Your task to perform on an android device: Open the calendar app, open the side menu, and click the "Day" option Image 0: 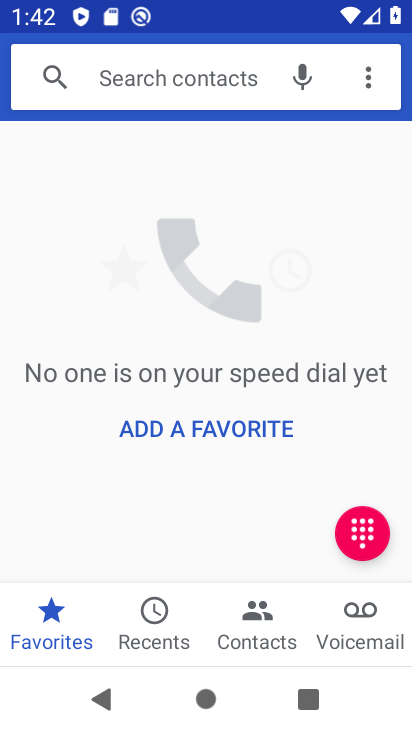
Step 0: drag from (208, 544) to (234, 26)
Your task to perform on an android device: Open the calendar app, open the side menu, and click the "Day" option Image 1: 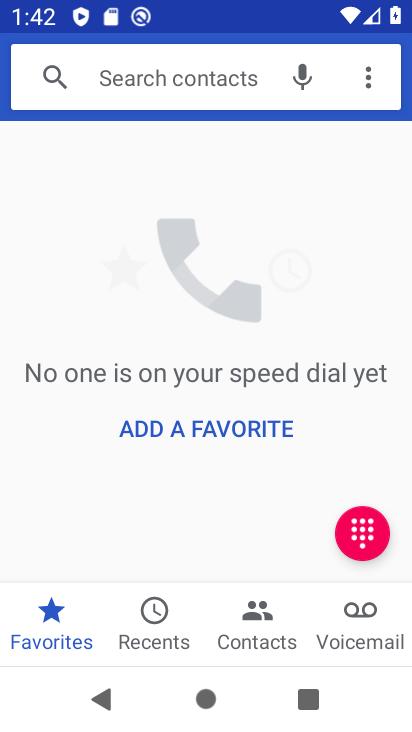
Step 1: press home button
Your task to perform on an android device: Open the calendar app, open the side menu, and click the "Day" option Image 2: 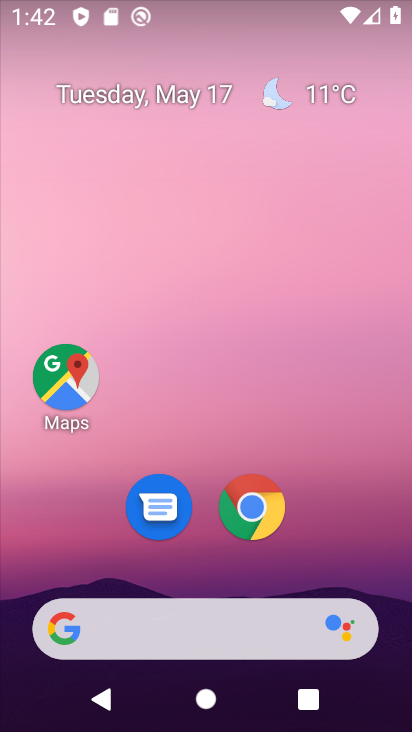
Step 2: click (135, 93)
Your task to perform on an android device: Open the calendar app, open the side menu, and click the "Day" option Image 3: 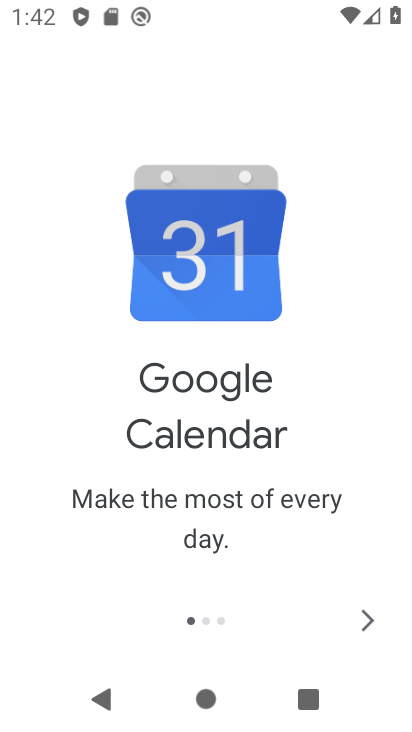
Step 3: click (371, 624)
Your task to perform on an android device: Open the calendar app, open the side menu, and click the "Day" option Image 4: 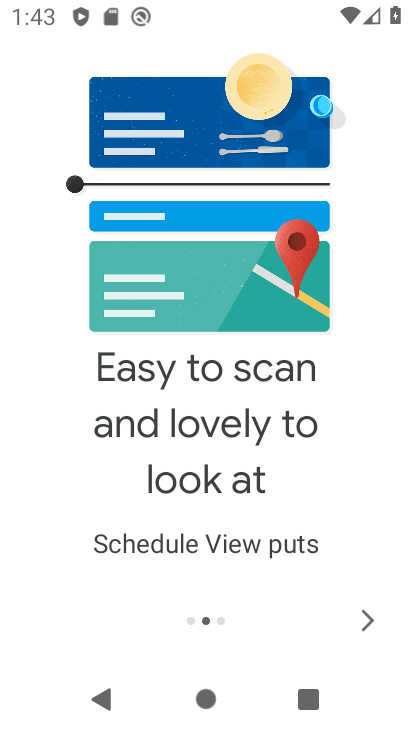
Step 4: click (371, 624)
Your task to perform on an android device: Open the calendar app, open the side menu, and click the "Day" option Image 5: 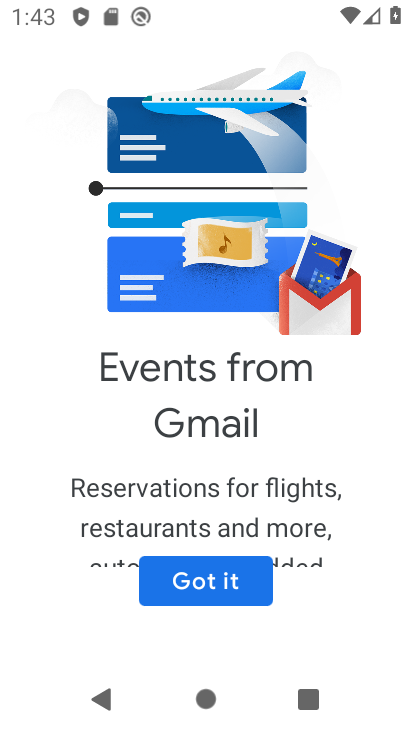
Step 5: click (227, 579)
Your task to perform on an android device: Open the calendar app, open the side menu, and click the "Day" option Image 6: 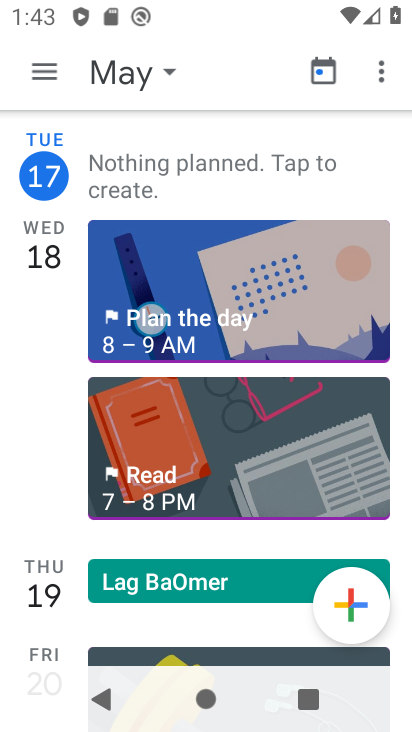
Step 6: click (57, 72)
Your task to perform on an android device: Open the calendar app, open the side menu, and click the "Day" option Image 7: 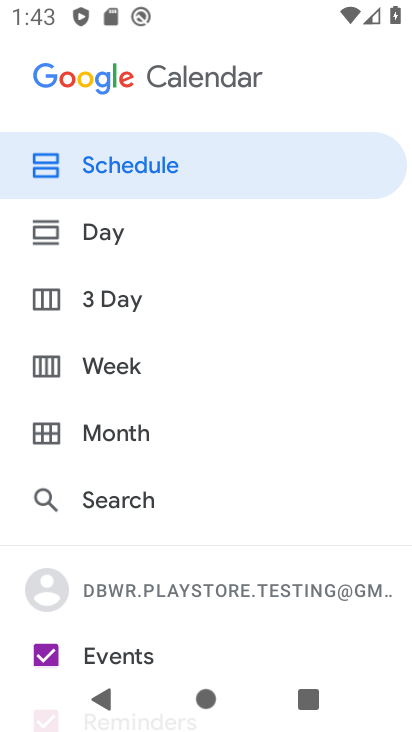
Step 7: click (117, 222)
Your task to perform on an android device: Open the calendar app, open the side menu, and click the "Day" option Image 8: 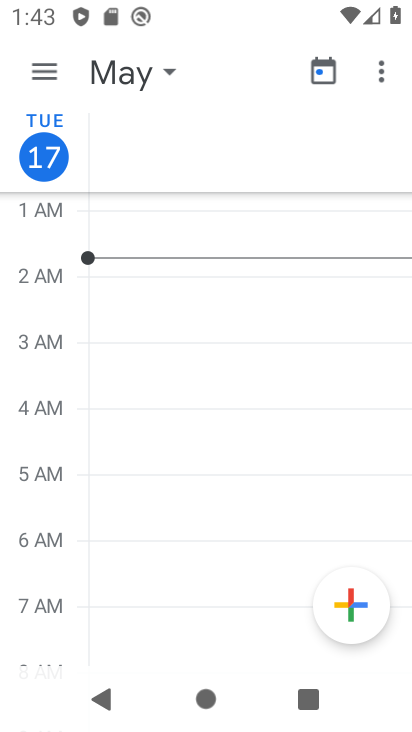
Step 8: task complete